Your task to perform on an android device: Check the news Image 0: 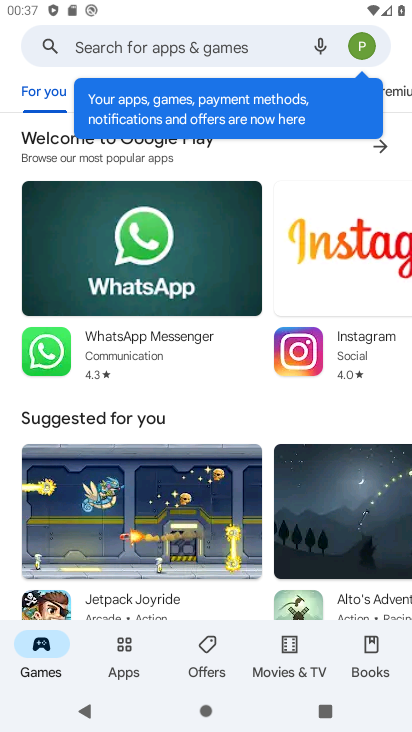
Step 0: press home button
Your task to perform on an android device: Check the news Image 1: 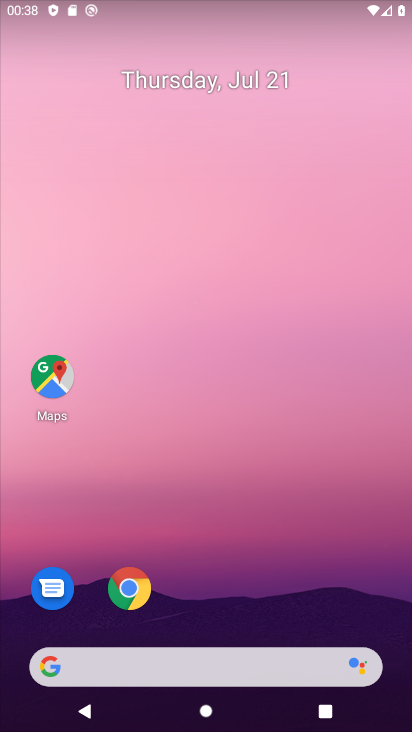
Step 1: task complete